Your task to perform on an android device: Open wifi settings Image 0: 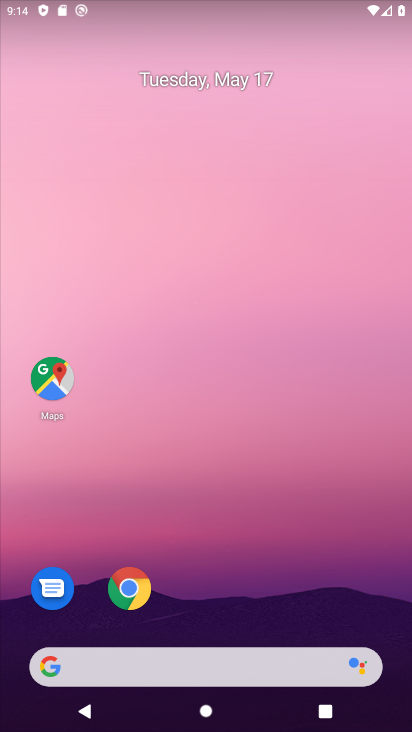
Step 0: drag from (215, 637) to (148, 0)
Your task to perform on an android device: Open wifi settings Image 1: 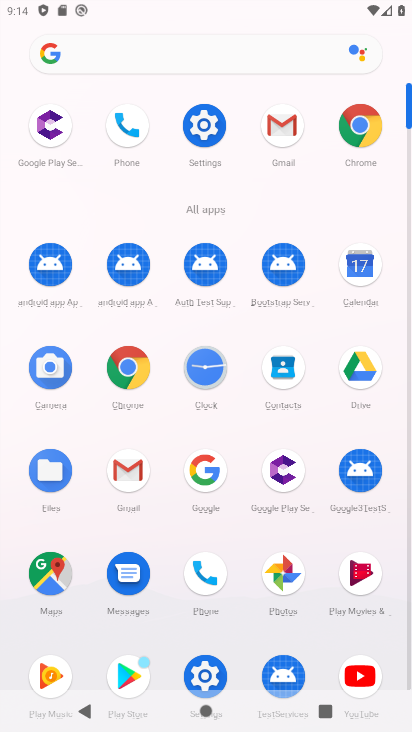
Step 1: click (196, 133)
Your task to perform on an android device: Open wifi settings Image 2: 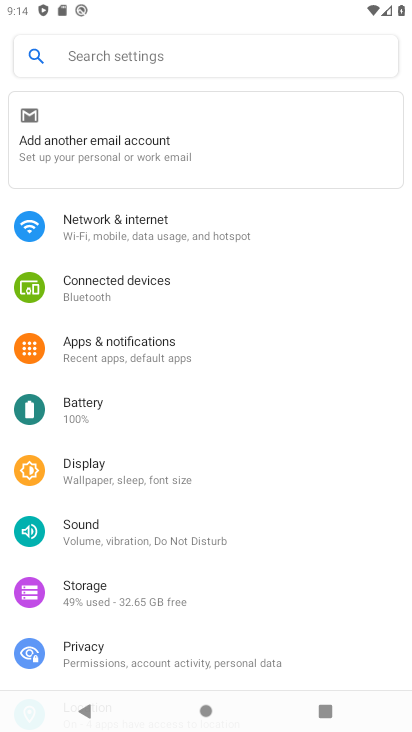
Step 2: click (112, 120)
Your task to perform on an android device: Open wifi settings Image 3: 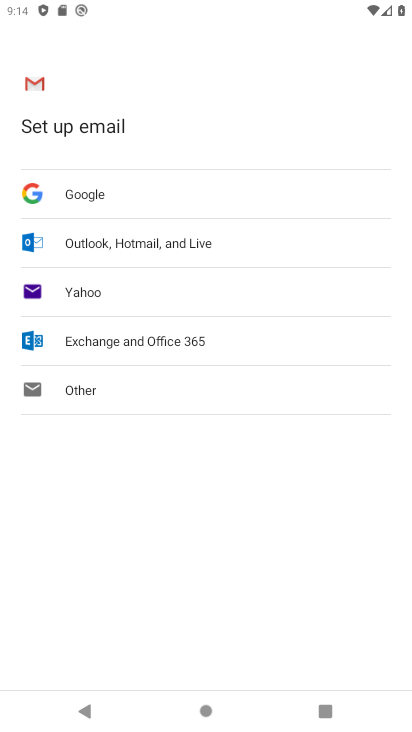
Step 3: press back button
Your task to perform on an android device: Open wifi settings Image 4: 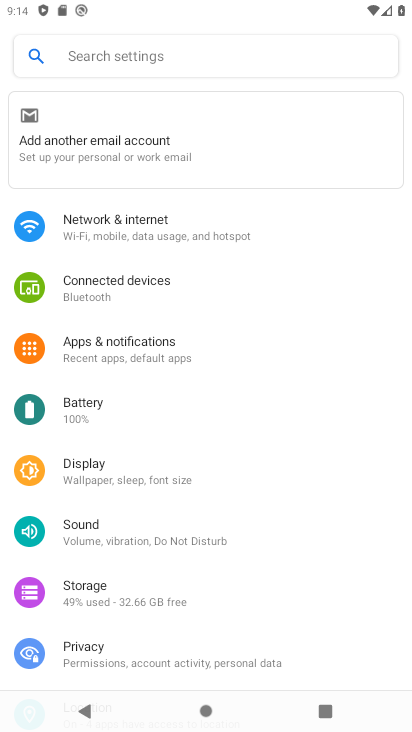
Step 4: drag from (108, 147) to (89, 6)
Your task to perform on an android device: Open wifi settings Image 5: 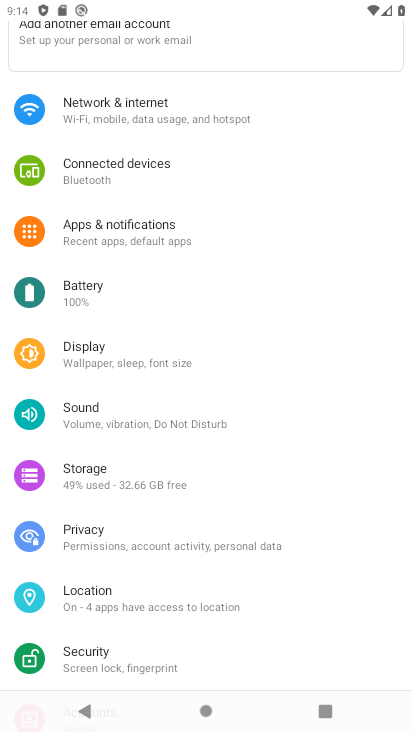
Step 5: click (111, 105)
Your task to perform on an android device: Open wifi settings Image 6: 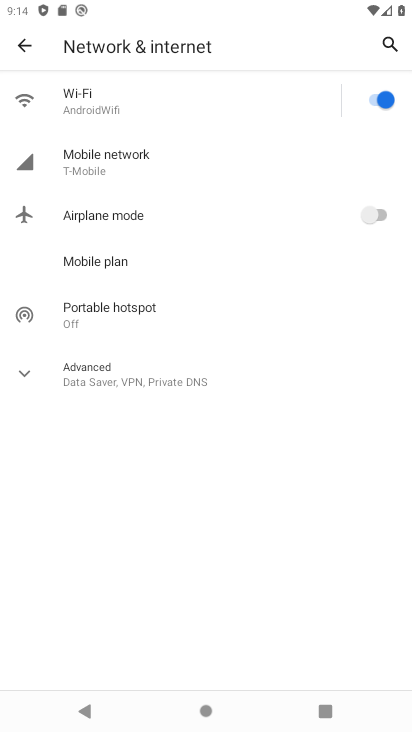
Step 6: click (105, 103)
Your task to perform on an android device: Open wifi settings Image 7: 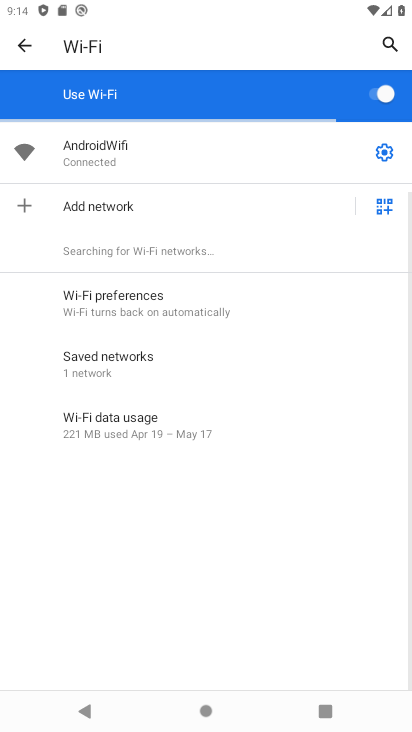
Step 7: task complete